Your task to perform on an android device: check the backup settings in the google photos Image 0: 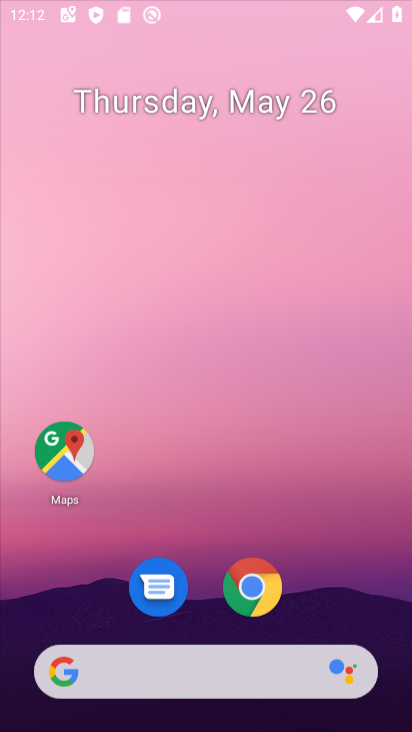
Step 0: press home button
Your task to perform on an android device: check the backup settings in the google photos Image 1: 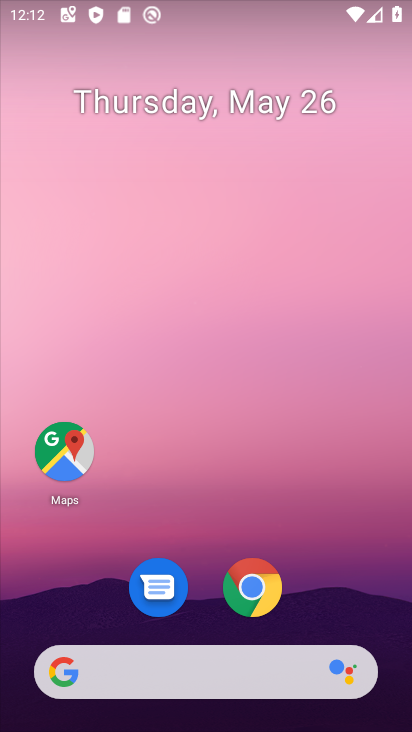
Step 1: drag from (207, 621) to (226, 78)
Your task to perform on an android device: check the backup settings in the google photos Image 2: 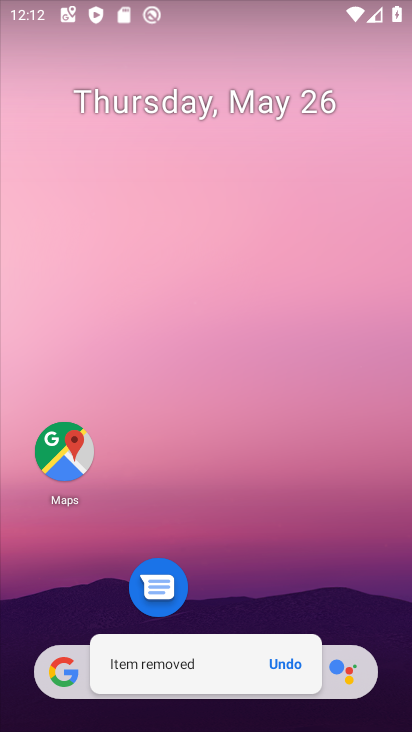
Step 2: click (282, 658)
Your task to perform on an android device: check the backup settings in the google photos Image 3: 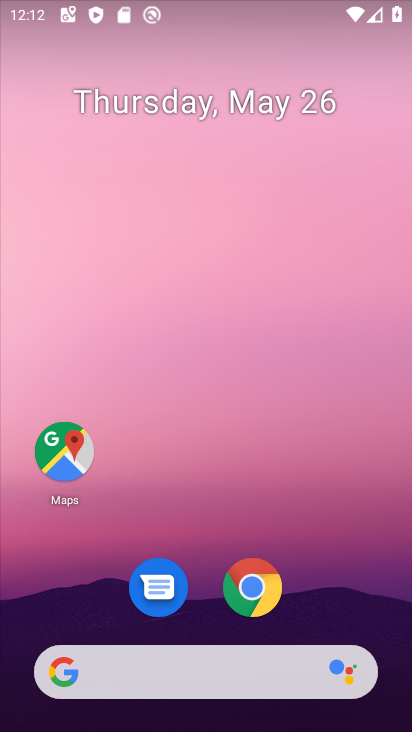
Step 3: drag from (325, 617) to (357, 72)
Your task to perform on an android device: check the backup settings in the google photos Image 4: 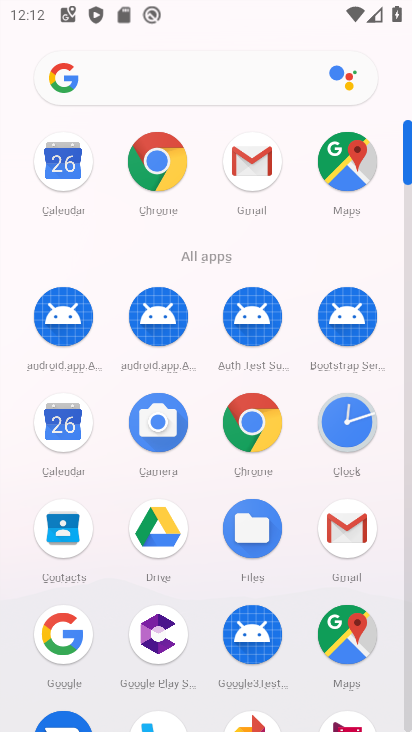
Step 4: drag from (205, 590) to (238, 0)
Your task to perform on an android device: check the backup settings in the google photos Image 5: 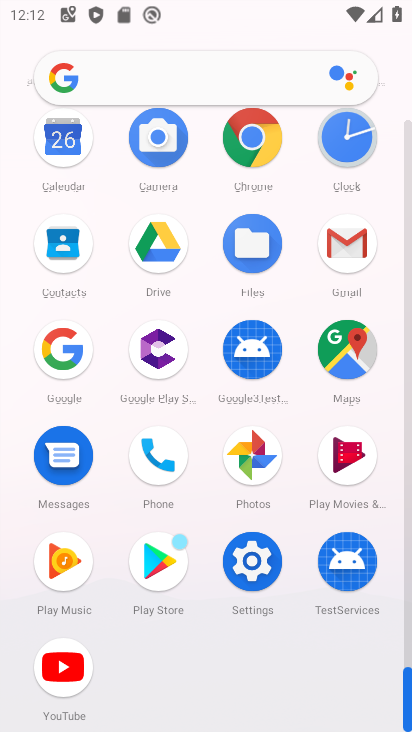
Step 5: click (251, 445)
Your task to perform on an android device: check the backup settings in the google photos Image 6: 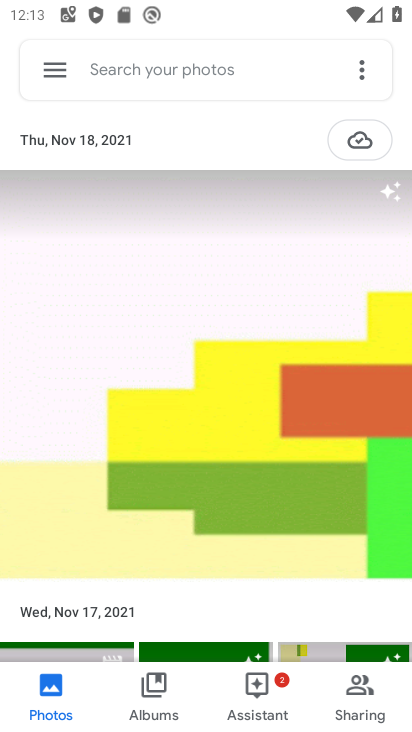
Step 6: click (359, 65)
Your task to perform on an android device: check the backup settings in the google photos Image 7: 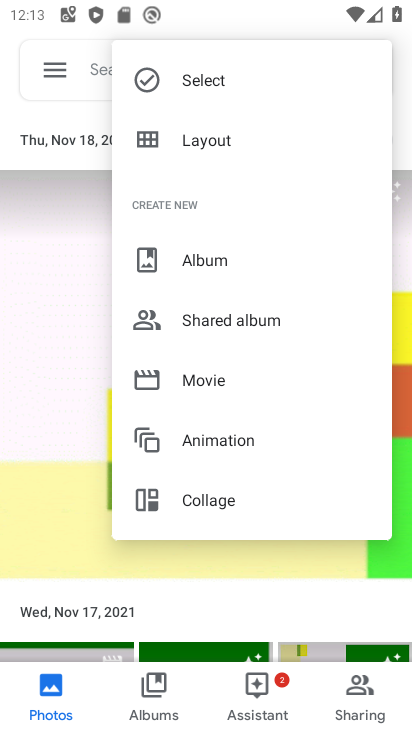
Step 7: click (40, 373)
Your task to perform on an android device: check the backup settings in the google photos Image 8: 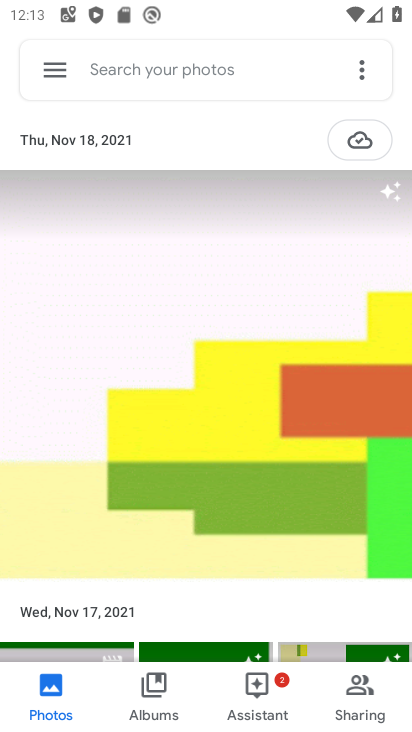
Step 8: click (54, 70)
Your task to perform on an android device: check the backup settings in the google photos Image 9: 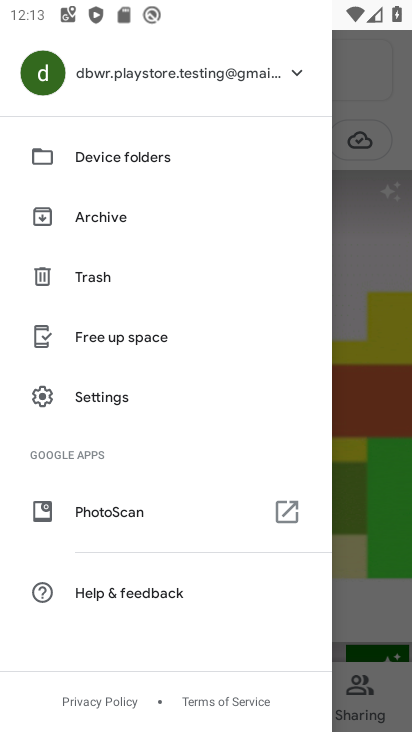
Step 9: click (132, 400)
Your task to perform on an android device: check the backup settings in the google photos Image 10: 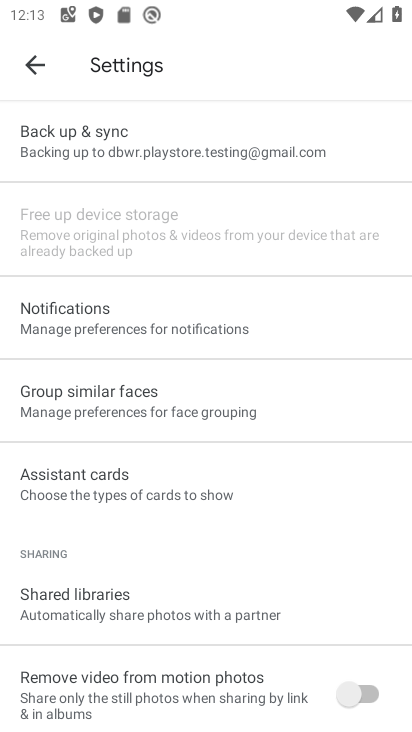
Step 10: click (146, 135)
Your task to perform on an android device: check the backup settings in the google photos Image 11: 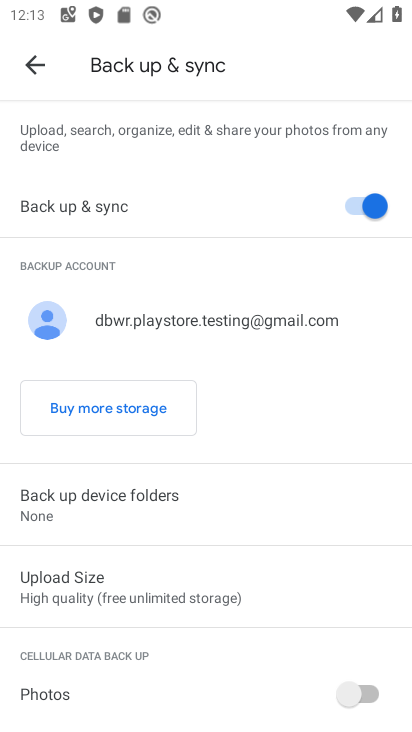
Step 11: task complete